Your task to perform on an android device: check data usage Image 0: 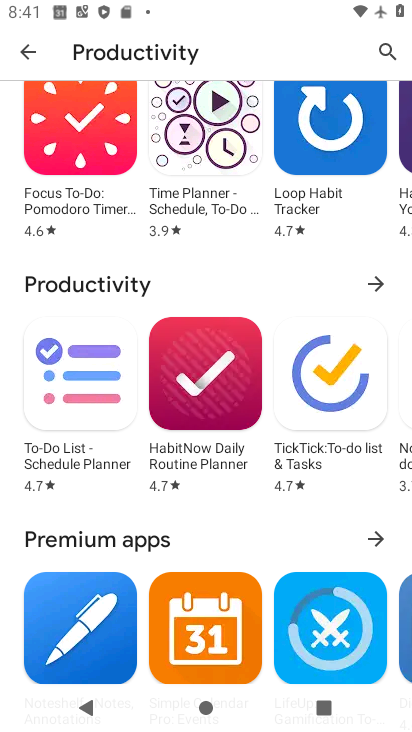
Step 0: press home button
Your task to perform on an android device: check data usage Image 1: 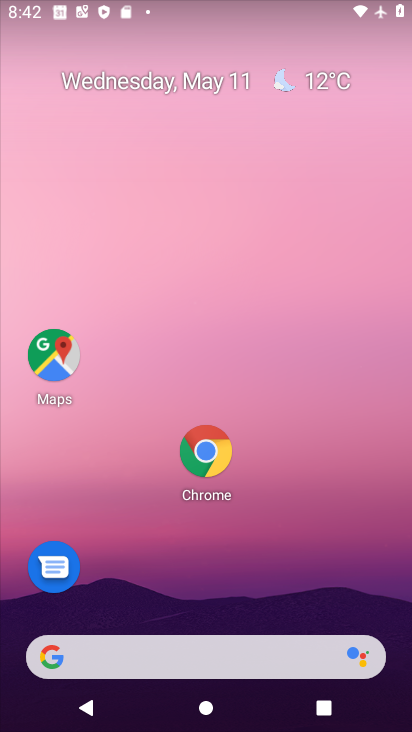
Step 1: drag from (211, 656) to (276, 52)
Your task to perform on an android device: check data usage Image 2: 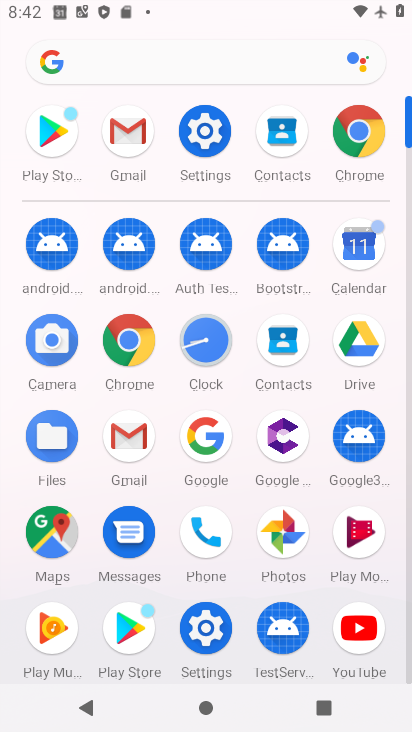
Step 2: click (196, 133)
Your task to perform on an android device: check data usage Image 3: 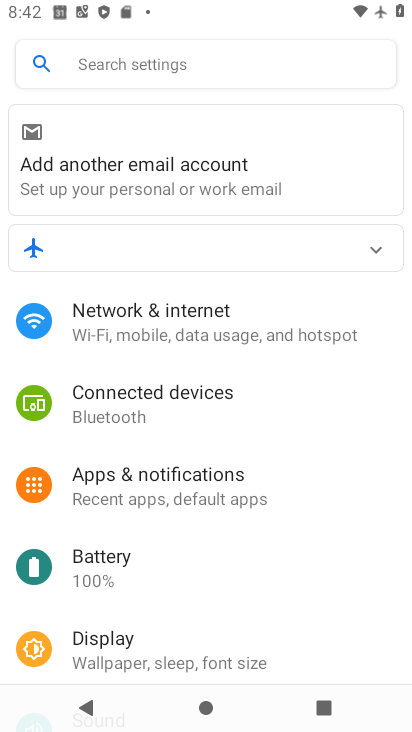
Step 3: click (174, 320)
Your task to perform on an android device: check data usage Image 4: 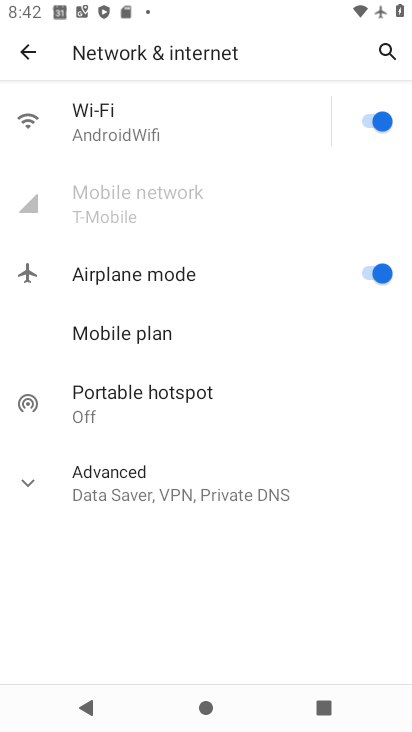
Step 4: click (146, 128)
Your task to perform on an android device: check data usage Image 5: 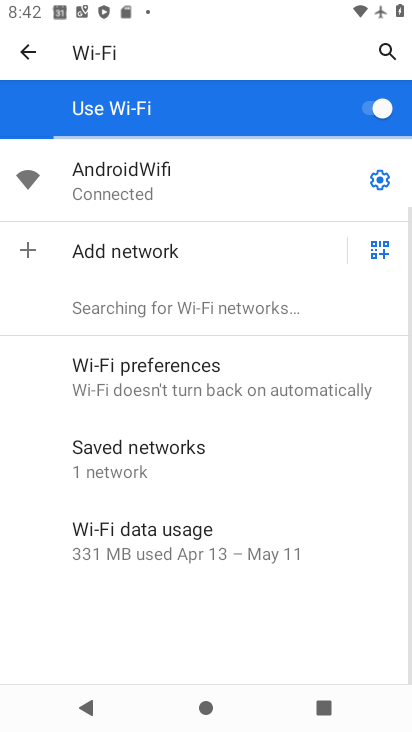
Step 5: click (177, 532)
Your task to perform on an android device: check data usage Image 6: 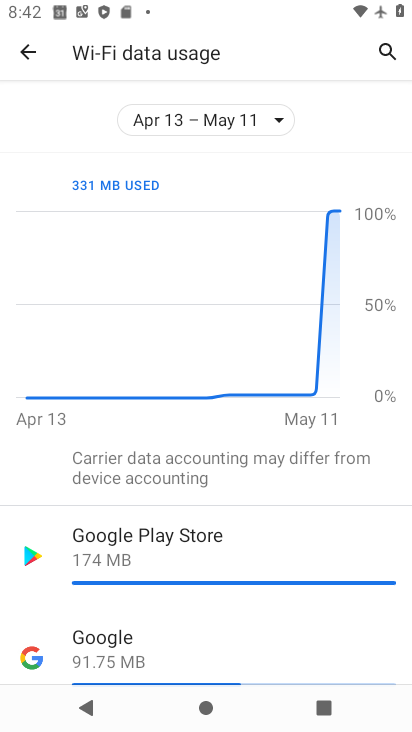
Step 6: task complete